Your task to perform on an android device: check out phone information Image 0: 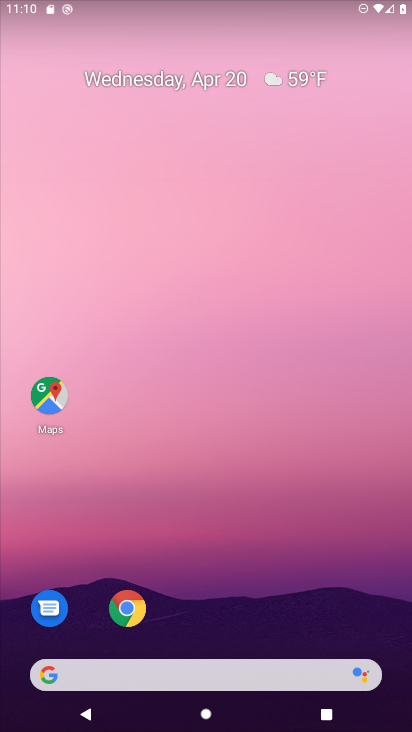
Step 0: drag from (270, 606) to (254, 165)
Your task to perform on an android device: check out phone information Image 1: 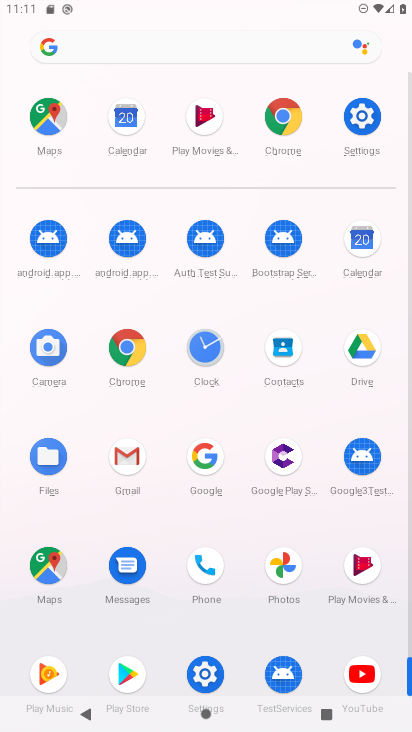
Step 1: click (208, 574)
Your task to perform on an android device: check out phone information Image 2: 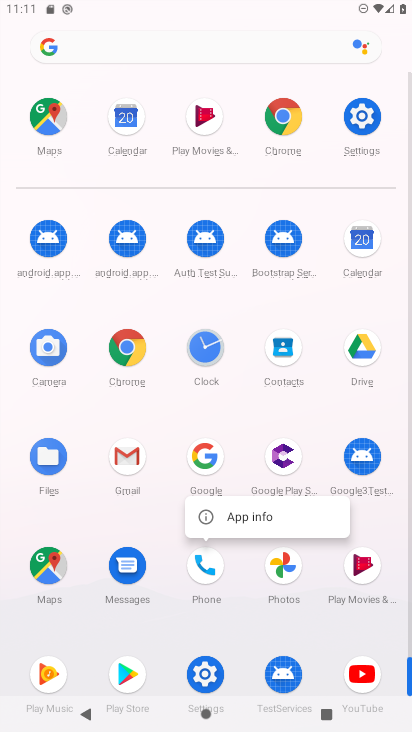
Step 2: click (192, 580)
Your task to perform on an android device: check out phone information Image 3: 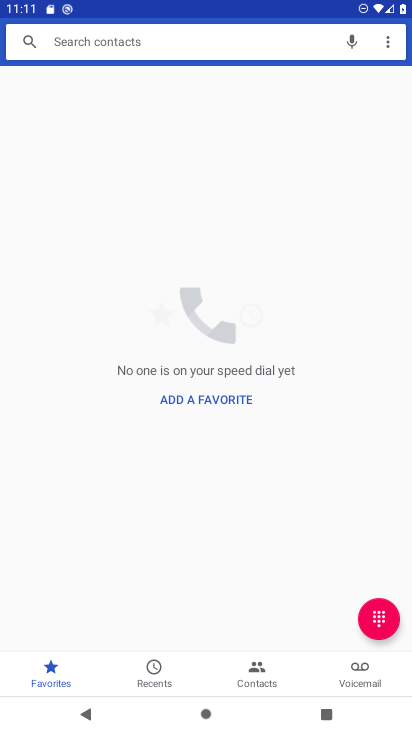
Step 3: click (389, 43)
Your task to perform on an android device: check out phone information Image 4: 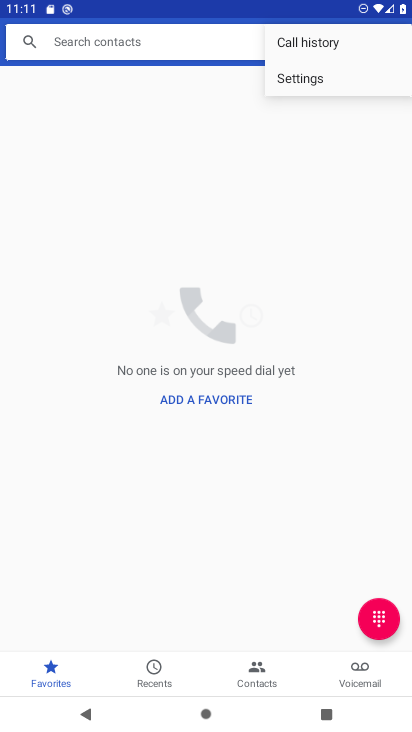
Step 4: click (322, 80)
Your task to perform on an android device: check out phone information Image 5: 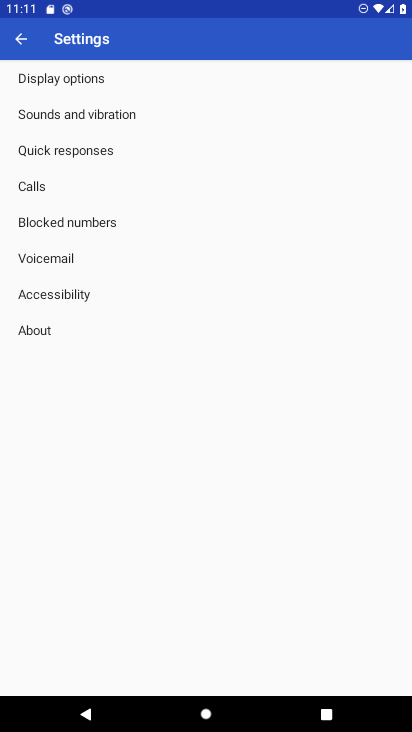
Step 5: click (28, 338)
Your task to perform on an android device: check out phone information Image 6: 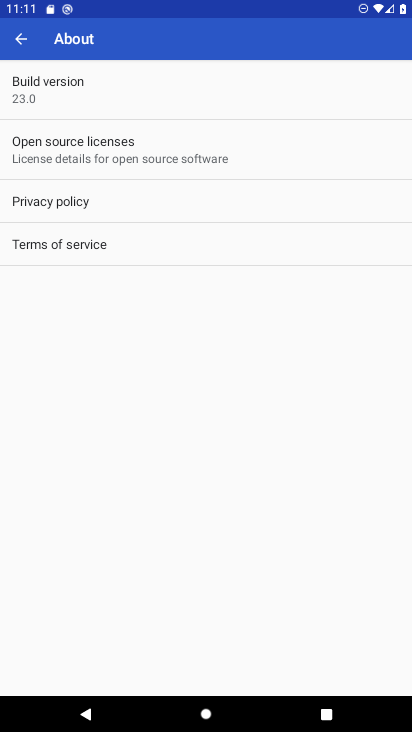
Step 6: task complete